Your task to perform on an android device: turn on airplane mode Image 0: 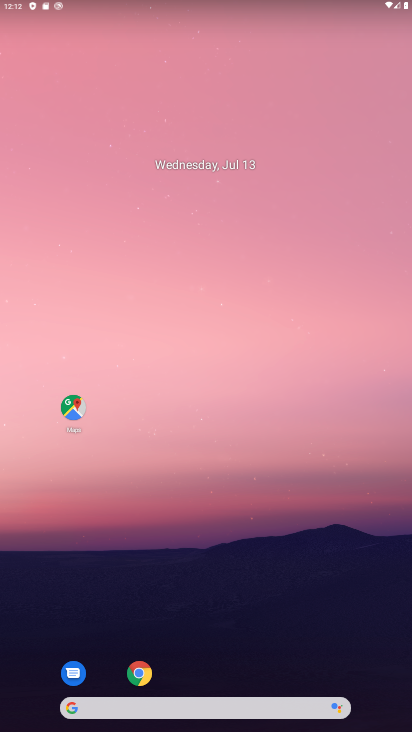
Step 0: drag from (216, 631) to (204, 124)
Your task to perform on an android device: turn on airplane mode Image 1: 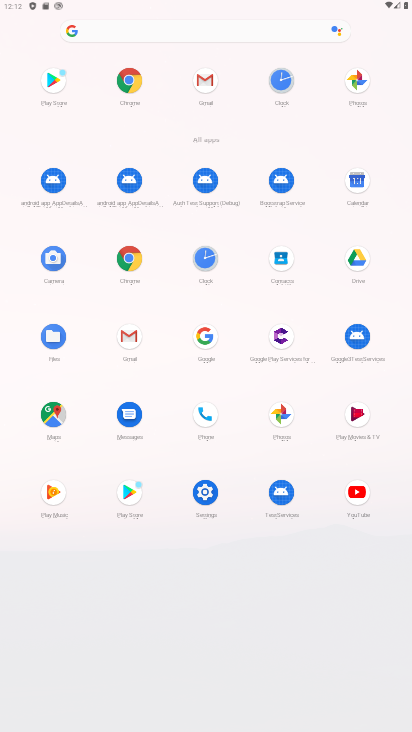
Step 1: click (193, 493)
Your task to perform on an android device: turn on airplane mode Image 2: 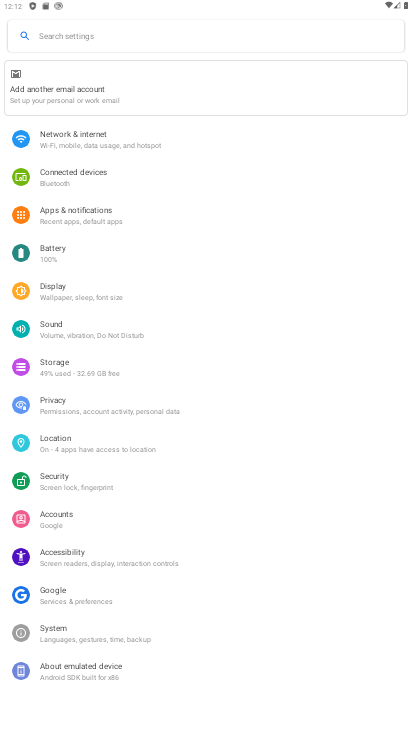
Step 2: click (138, 144)
Your task to perform on an android device: turn on airplane mode Image 3: 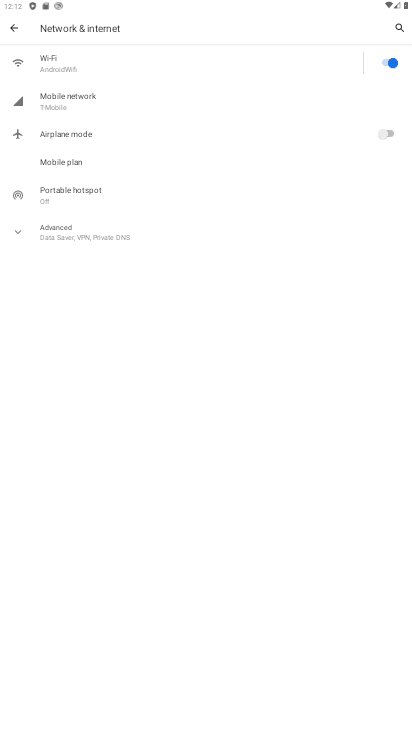
Step 3: click (386, 76)
Your task to perform on an android device: turn on airplane mode Image 4: 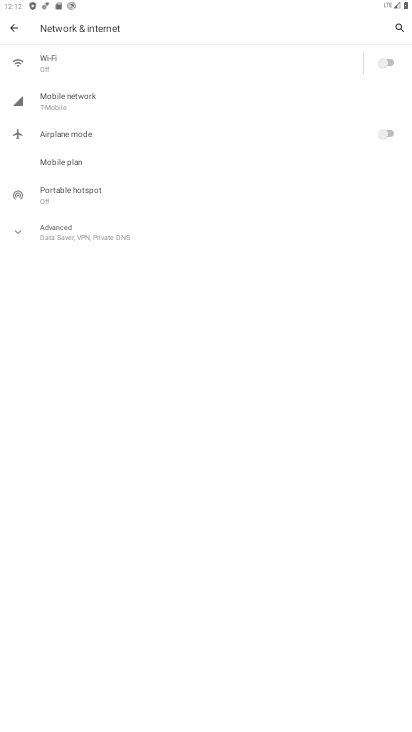
Step 4: click (386, 67)
Your task to perform on an android device: turn on airplane mode Image 5: 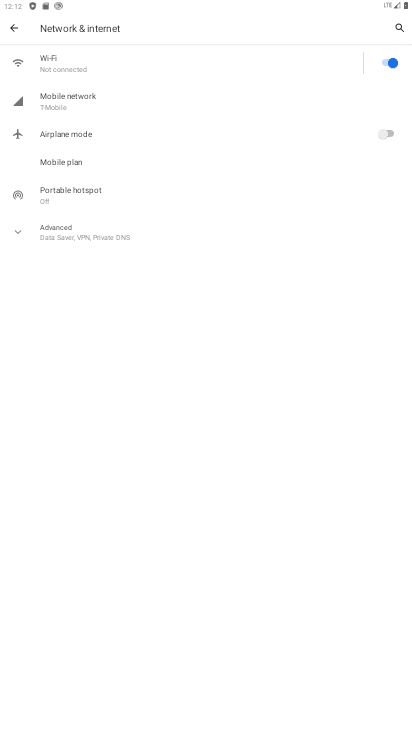
Step 5: task complete